Your task to perform on an android device: Open settings Image 0: 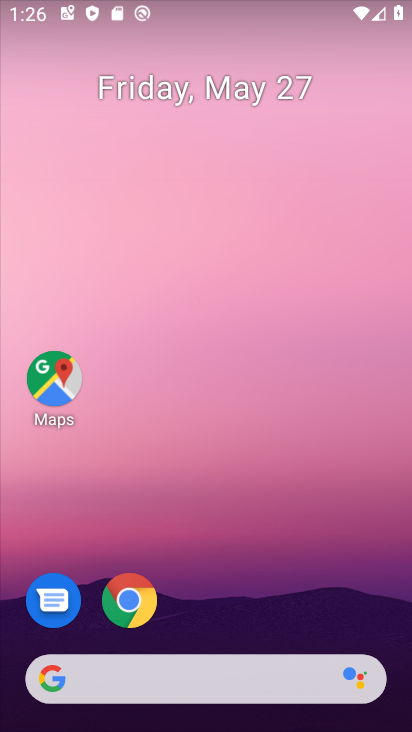
Step 0: drag from (238, 718) to (233, 110)
Your task to perform on an android device: Open settings Image 1: 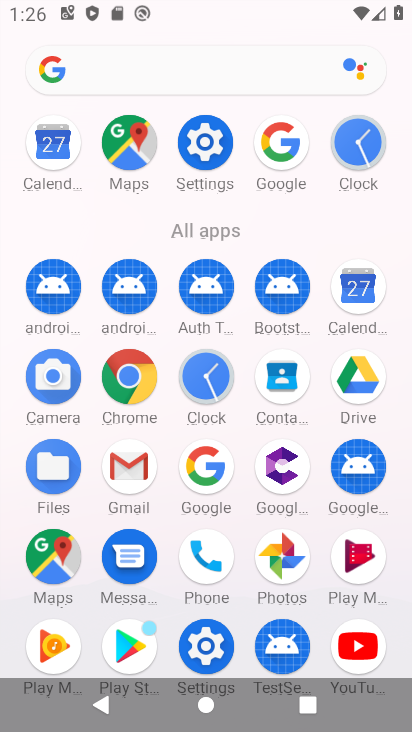
Step 1: click (210, 148)
Your task to perform on an android device: Open settings Image 2: 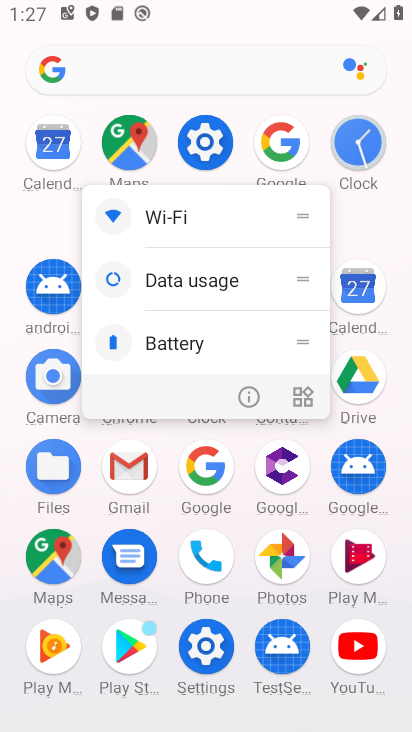
Step 2: click (135, 136)
Your task to perform on an android device: Open settings Image 3: 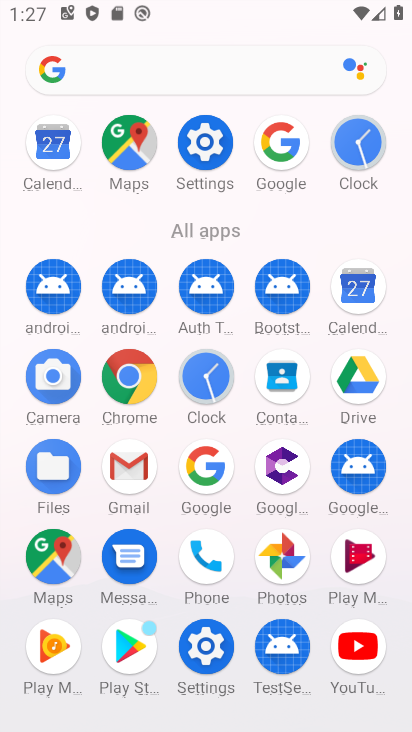
Step 3: click (199, 141)
Your task to perform on an android device: Open settings Image 4: 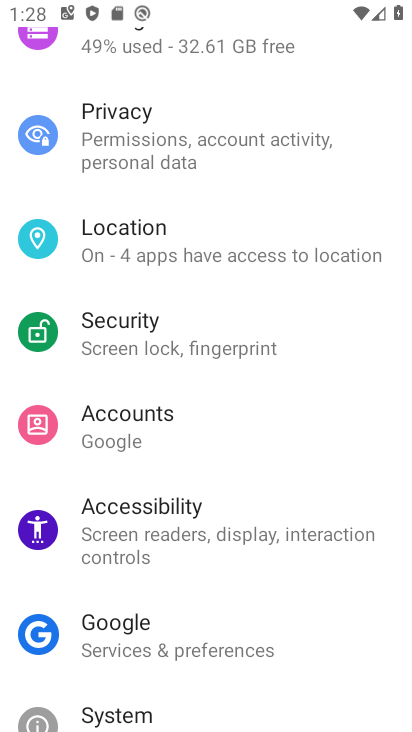
Step 4: task complete